Your task to perform on an android device: refresh tabs in the chrome app Image 0: 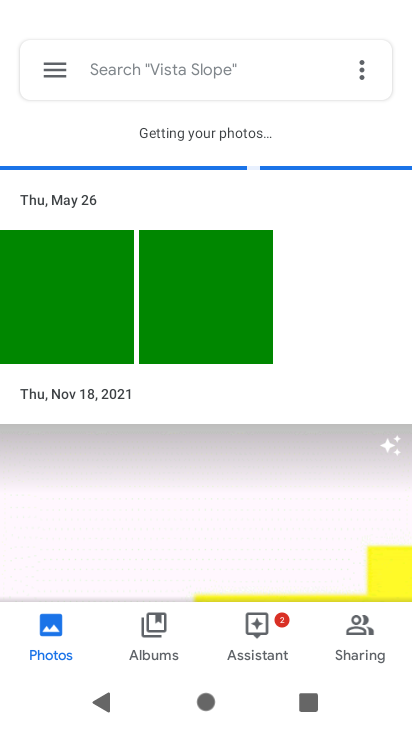
Step 0: press home button
Your task to perform on an android device: refresh tabs in the chrome app Image 1: 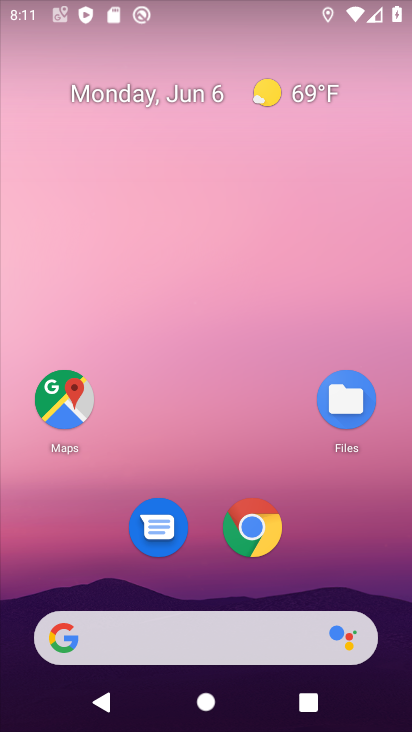
Step 1: click (251, 526)
Your task to perform on an android device: refresh tabs in the chrome app Image 2: 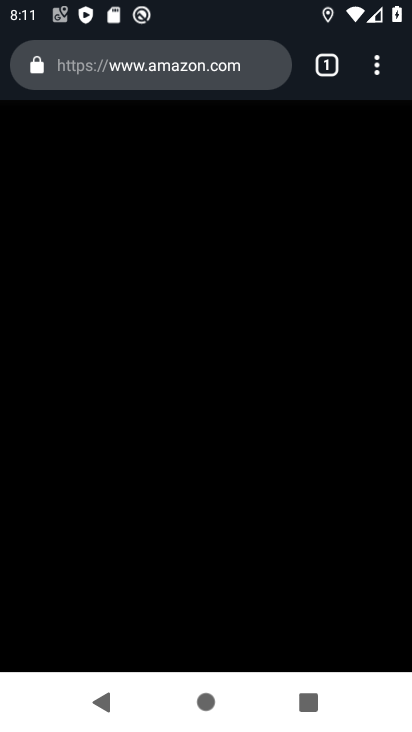
Step 2: press home button
Your task to perform on an android device: refresh tabs in the chrome app Image 3: 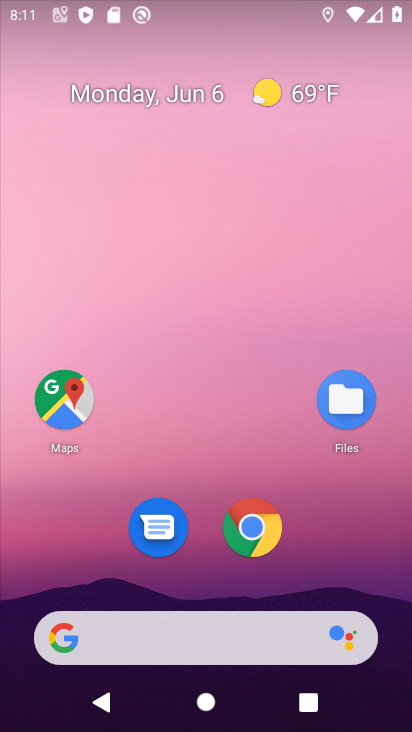
Step 3: click (250, 518)
Your task to perform on an android device: refresh tabs in the chrome app Image 4: 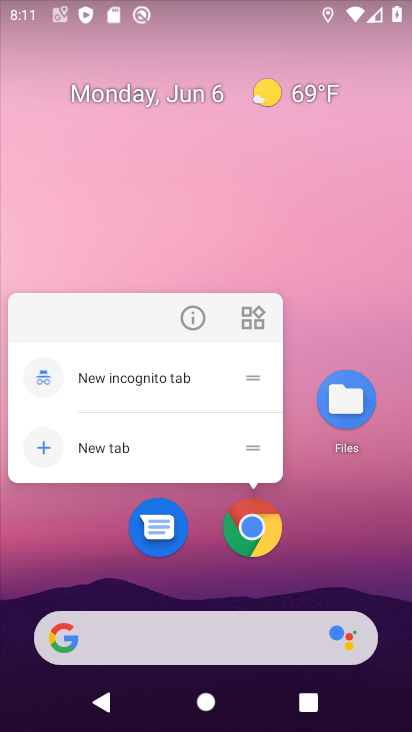
Step 4: click (262, 525)
Your task to perform on an android device: refresh tabs in the chrome app Image 5: 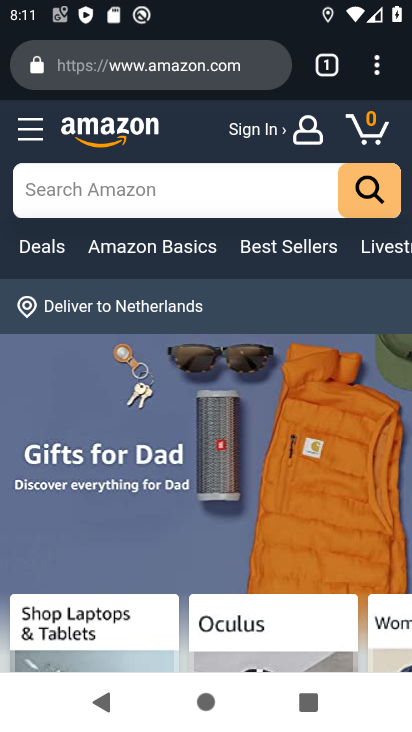
Step 5: click (366, 71)
Your task to perform on an android device: refresh tabs in the chrome app Image 6: 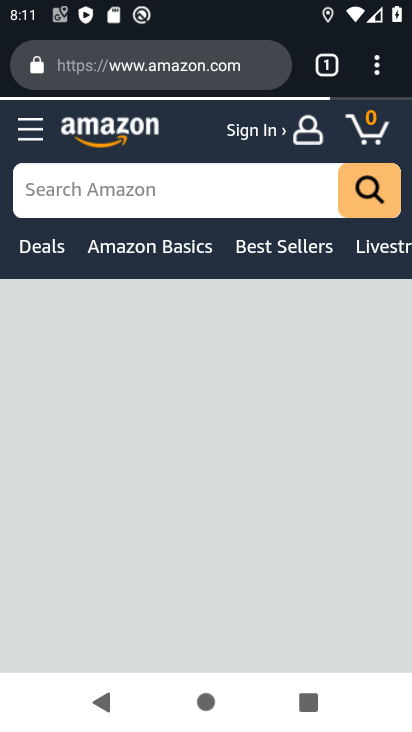
Step 6: click (366, 70)
Your task to perform on an android device: refresh tabs in the chrome app Image 7: 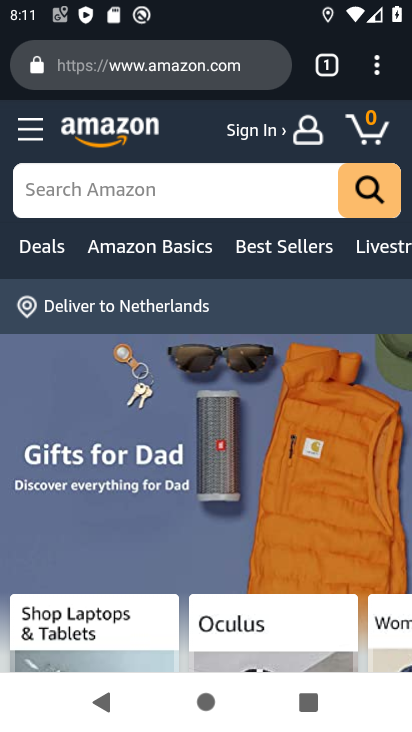
Step 7: click (366, 70)
Your task to perform on an android device: refresh tabs in the chrome app Image 8: 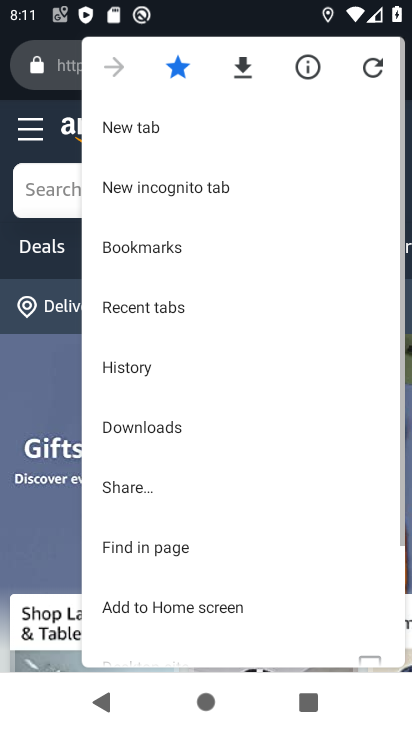
Step 8: click (371, 70)
Your task to perform on an android device: refresh tabs in the chrome app Image 9: 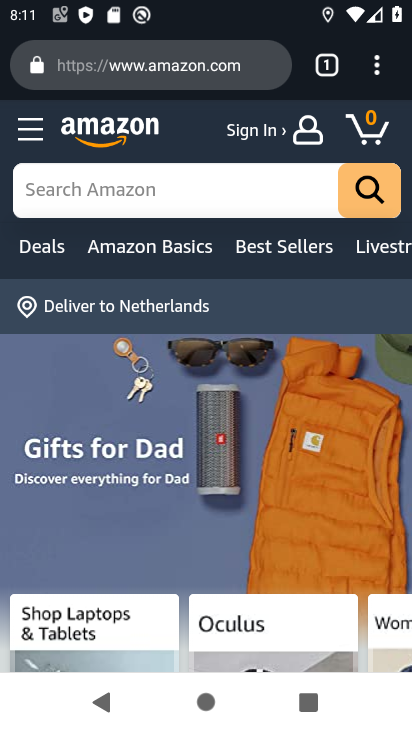
Step 9: task complete